Your task to perform on an android device: Do I have any events tomorrow? Image 0: 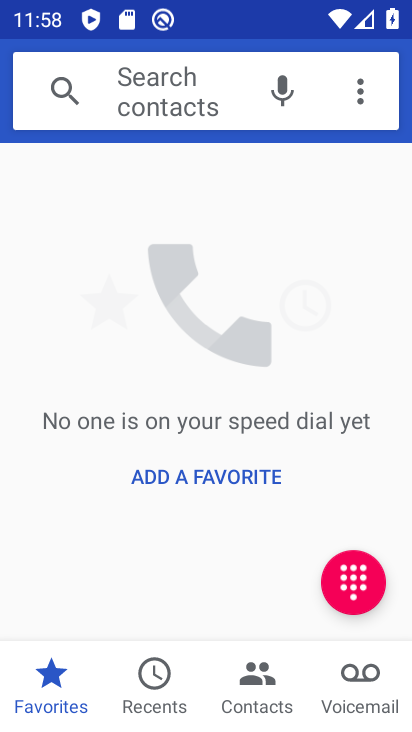
Step 0: press home button
Your task to perform on an android device: Do I have any events tomorrow? Image 1: 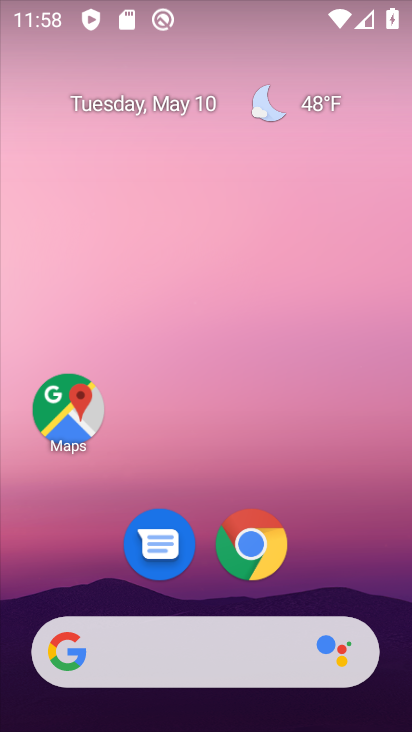
Step 1: drag from (197, 608) to (259, 86)
Your task to perform on an android device: Do I have any events tomorrow? Image 2: 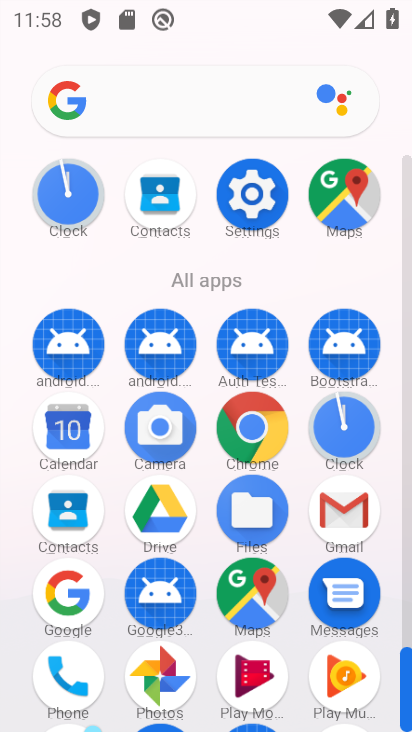
Step 2: click (68, 424)
Your task to perform on an android device: Do I have any events tomorrow? Image 3: 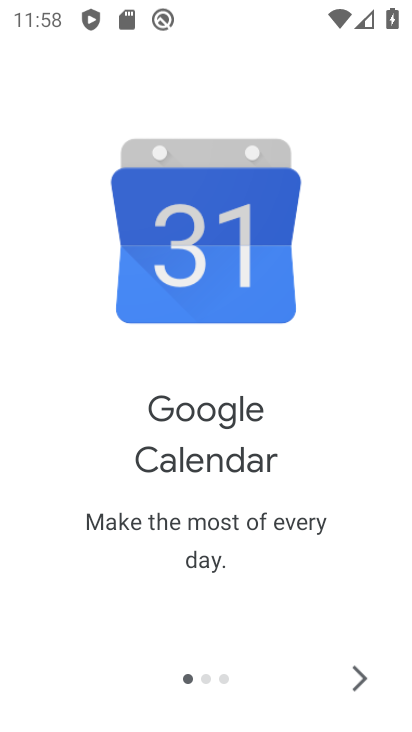
Step 3: click (356, 684)
Your task to perform on an android device: Do I have any events tomorrow? Image 4: 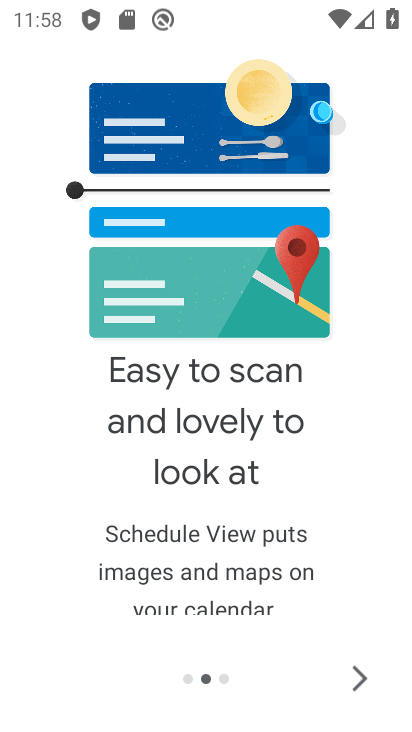
Step 4: click (356, 683)
Your task to perform on an android device: Do I have any events tomorrow? Image 5: 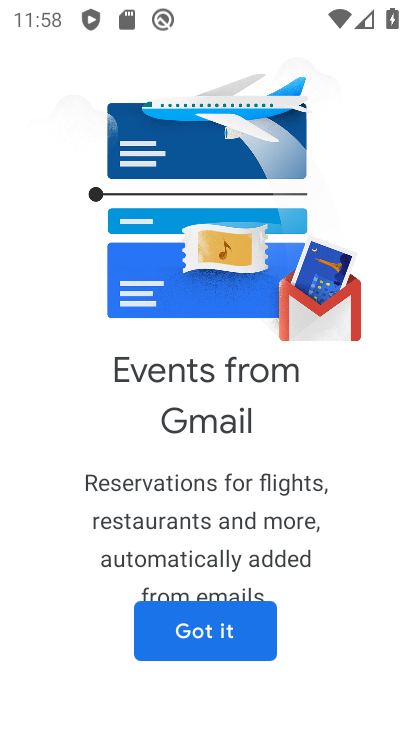
Step 5: click (252, 651)
Your task to perform on an android device: Do I have any events tomorrow? Image 6: 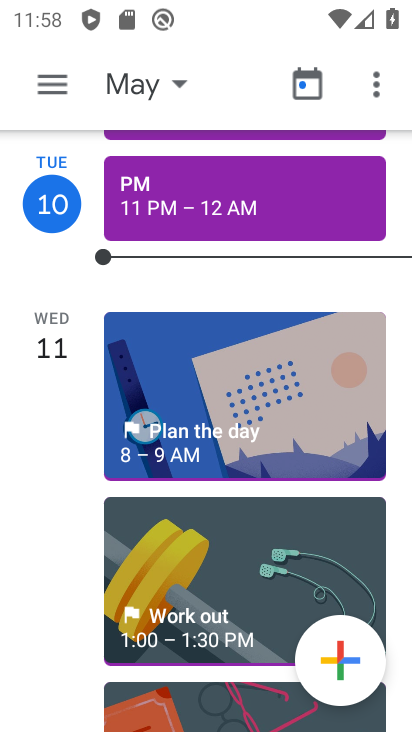
Step 6: click (51, 362)
Your task to perform on an android device: Do I have any events tomorrow? Image 7: 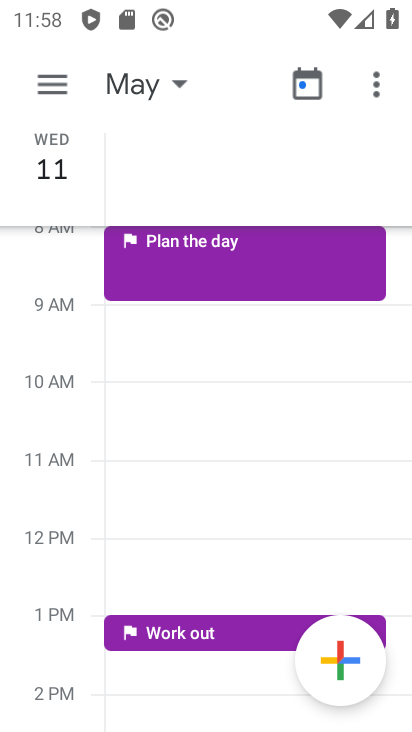
Step 7: click (54, 76)
Your task to perform on an android device: Do I have any events tomorrow? Image 8: 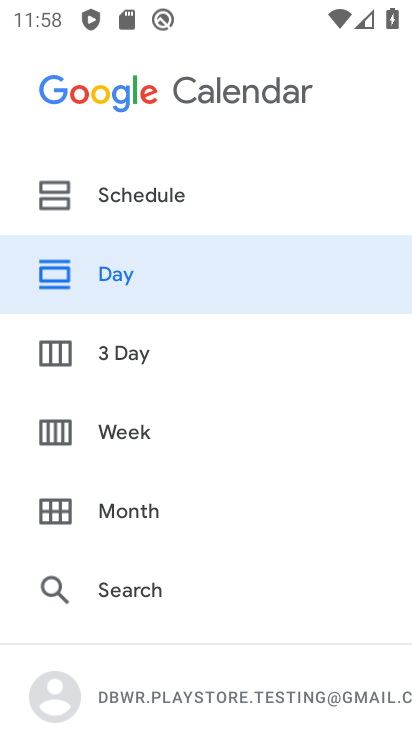
Step 8: drag from (153, 594) to (235, 207)
Your task to perform on an android device: Do I have any events tomorrow? Image 9: 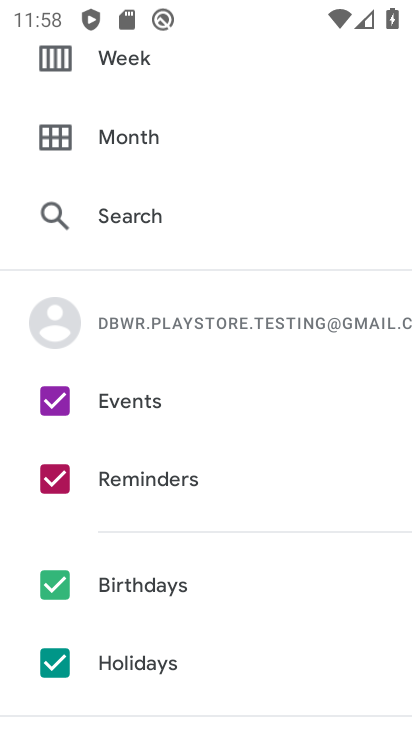
Step 9: click (154, 481)
Your task to perform on an android device: Do I have any events tomorrow? Image 10: 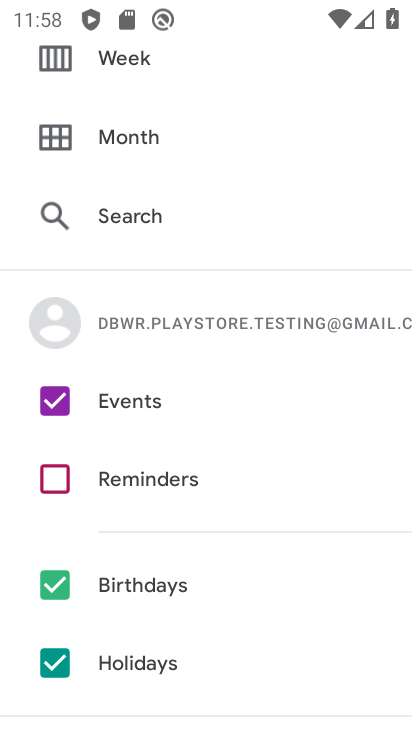
Step 10: click (167, 592)
Your task to perform on an android device: Do I have any events tomorrow? Image 11: 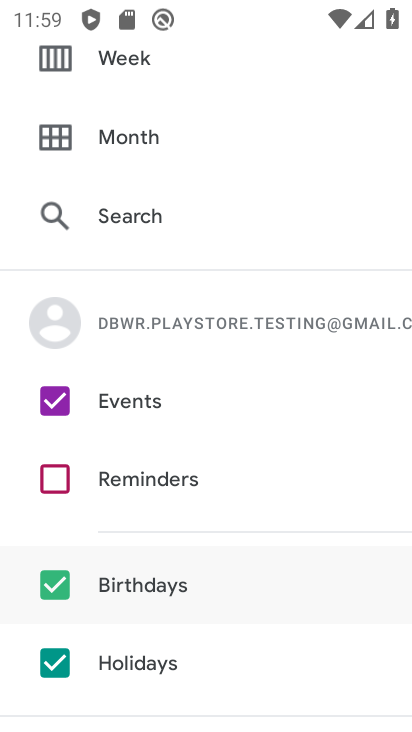
Step 11: click (160, 665)
Your task to perform on an android device: Do I have any events tomorrow? Image 12: 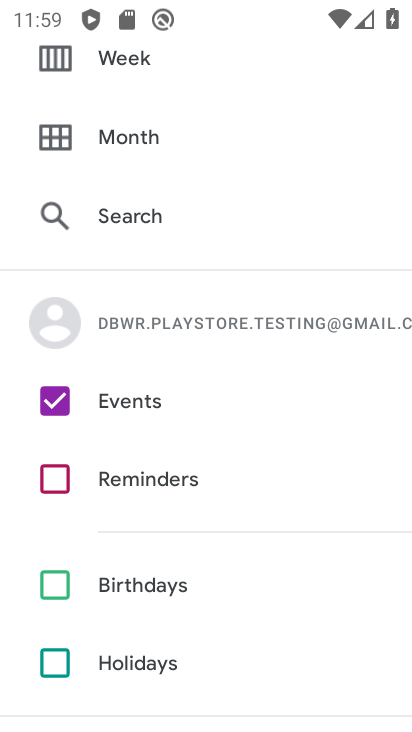
Step 12: task complete